Your task to perform on an android device: Go to Wikipedia Image 0: 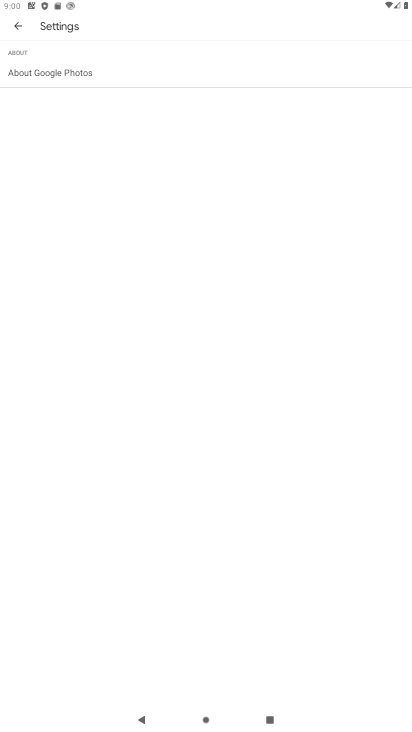
Step 0: press home button
Your task to perform on an android device: Go to Wikipedia Image 1: 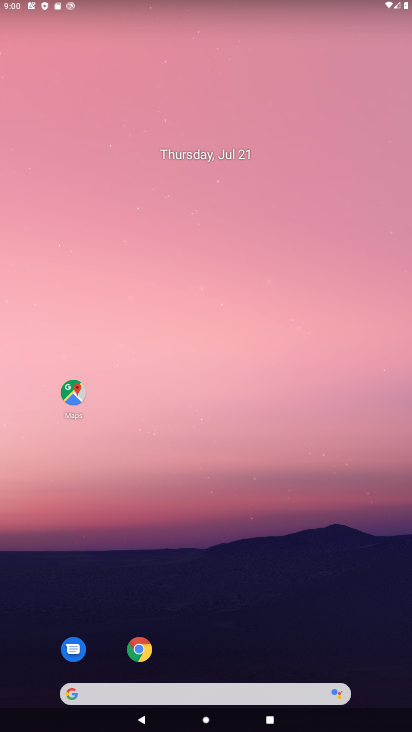
Step 1: click (142, 651)
Your task to perform on an android device: Go to Wikipedia Image 2: 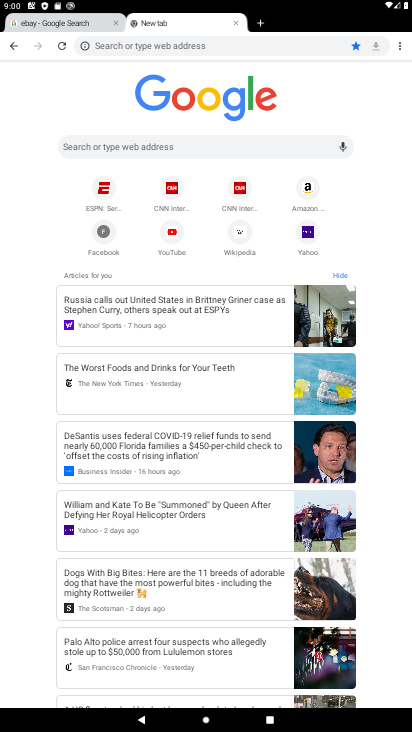
Step 2: click (231, 244)
Your task to perform on an android device: Go to Wikipedia Image 3: 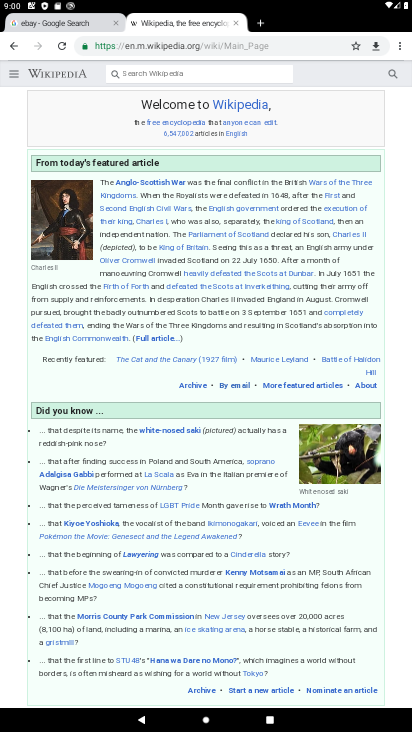
Step 3: task complete